Your task to perform on an android device: open a bookmark in the chrome app Image 0: 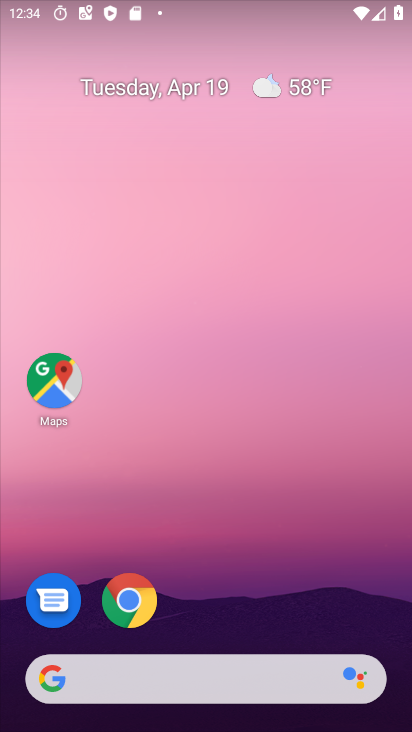
Step 0: drag from (276, 708) to (230, 291)
Your task to perform on an android device: open a bookmark in the chrome app Image 1: 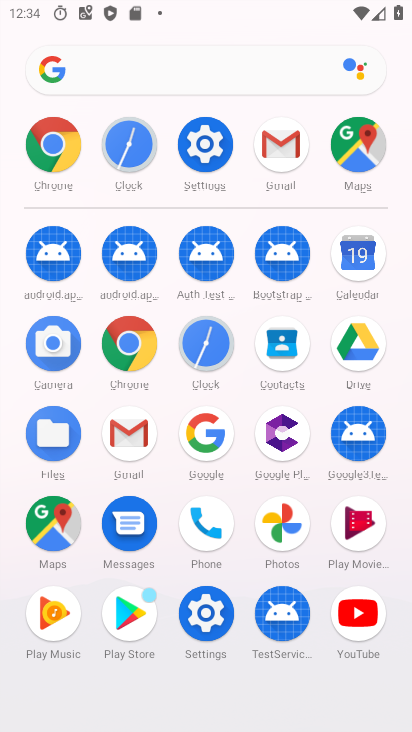
Step 1: click (127, 370)
Your task to perform on an android device: open a bookmark in the chrome app Image 2: 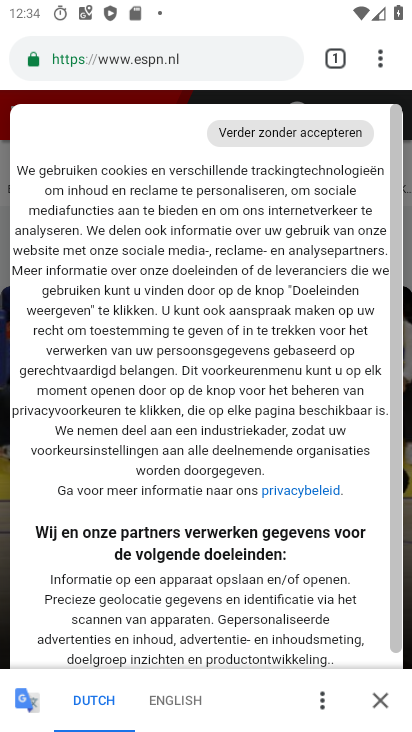
Step 2: click (377, 69)
Your task to perform on an android device: open a bookmark in the chrome app Image 3: 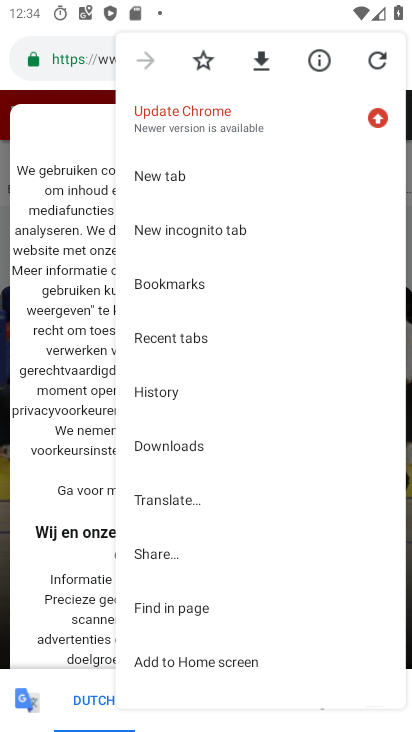
Step 3: click (174, 281)
Your task to perform on an android device: open a bookmark in the chrome app Image 4: 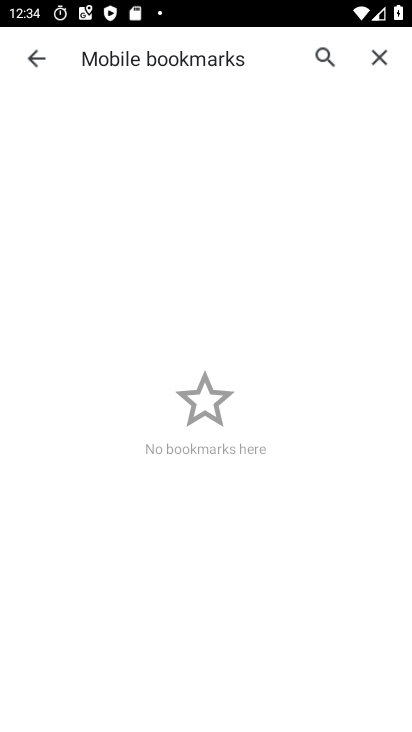
Step 4: task complete